Your task to perform on an android device: turn on bluetooth scan Image 0: 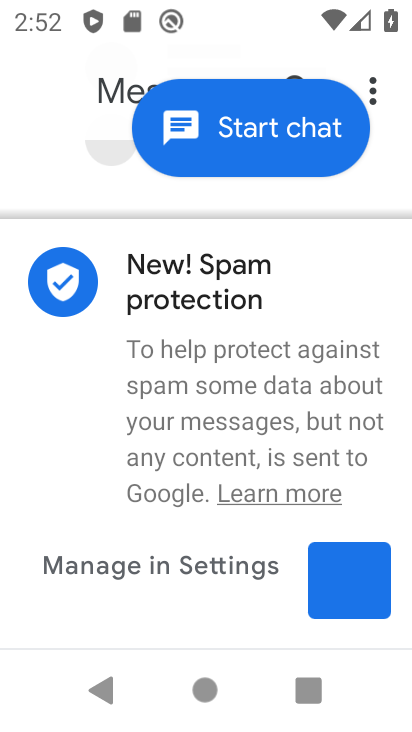
Step 0: press home button
Your task to perform on an android device: turn on bluetooth scan Image 1: 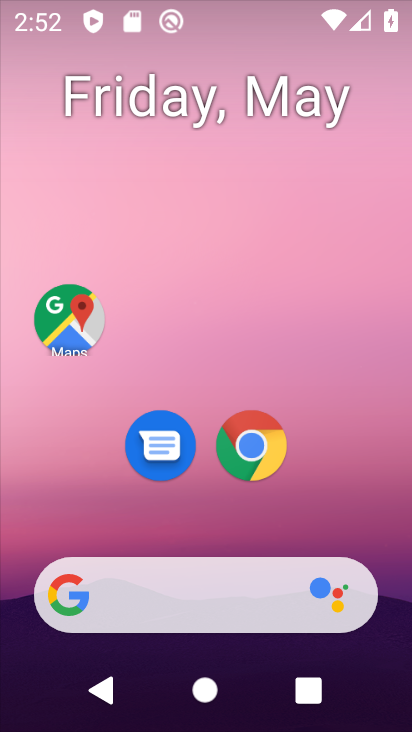
Step 1: drag from (400, 542) to (42, 90)
Your task to perform on an android device: turn on bluetooth scan Image 2: 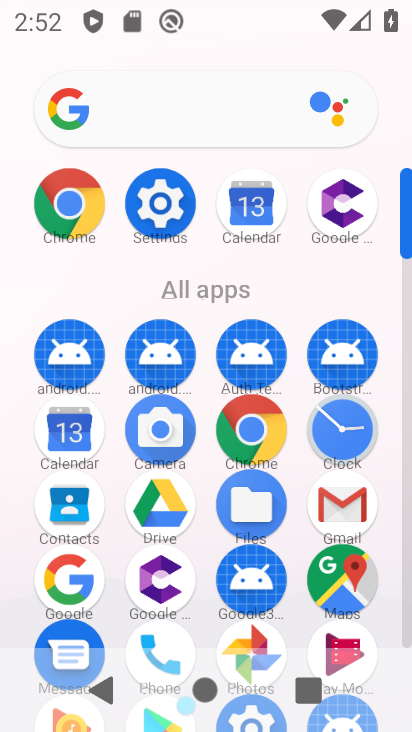
Step 2: click (161, 215)
Your task to perform on an android device: turn on bluetooth scan Image 3: 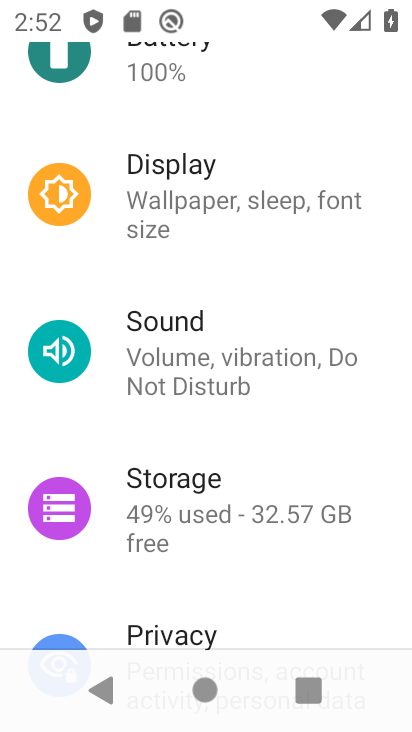
Step 3: drag from (196, 506) to (122, 79)
Your task to perform on an android device: turn on bluetooth scan Image 4: 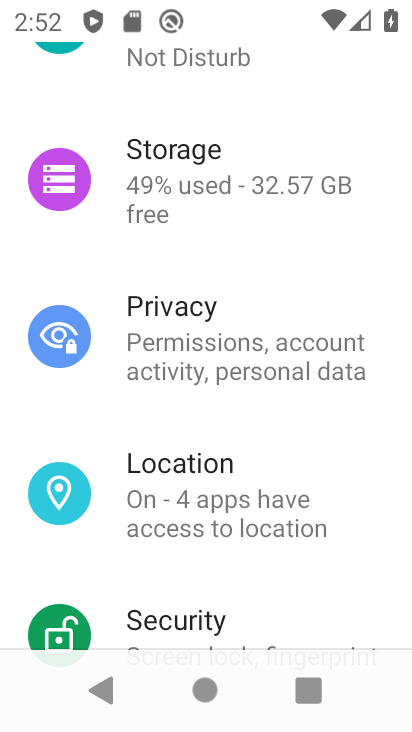
Step 4: click (178, 475)
Your task to perform on an android device: turn on bluetooth scan Image 5: 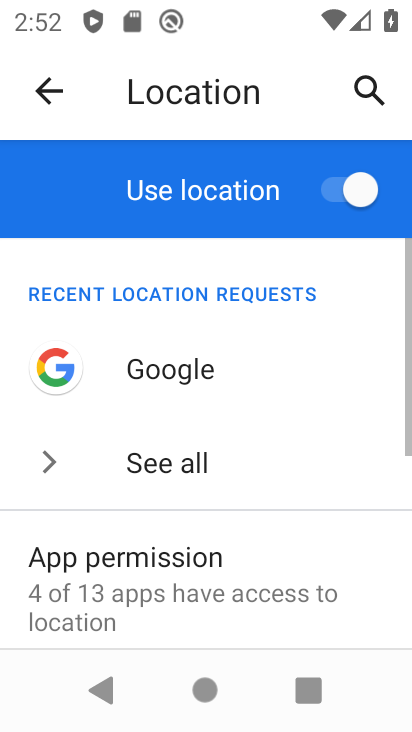
Step 5: drag from (175, 516) to (172, 159)
Your task to perform on an android device: turn on bluetooth scan Image 6: 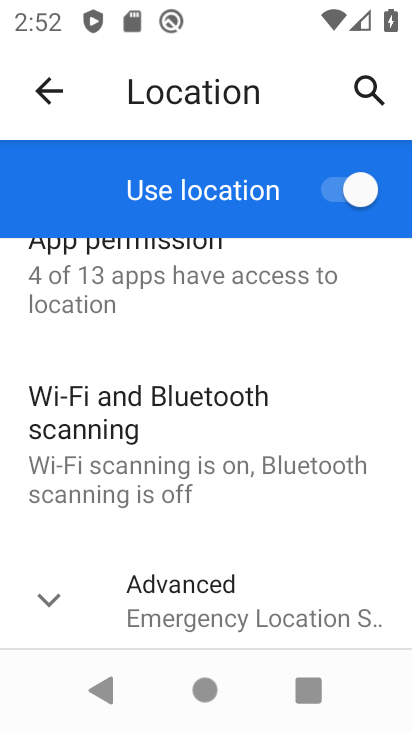
Step 6: click (105, 420)
Your task to perform on an android device: turn on bluetooth scan Image 7: 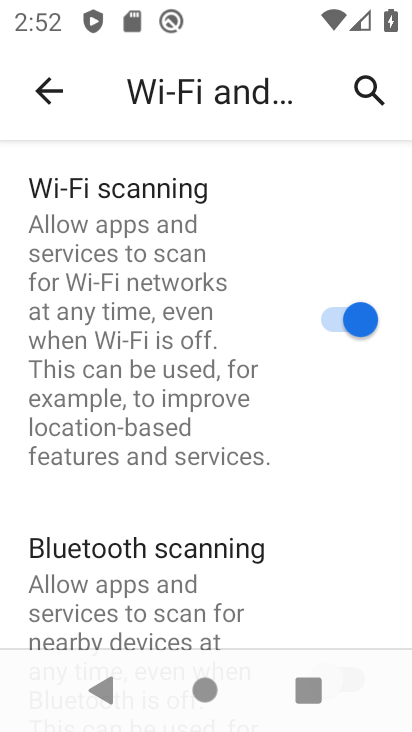
Step 7: drag from (190, 493) to (208, 107)
Your task to perform on an android device: turn on bluetooth scan Image 8: 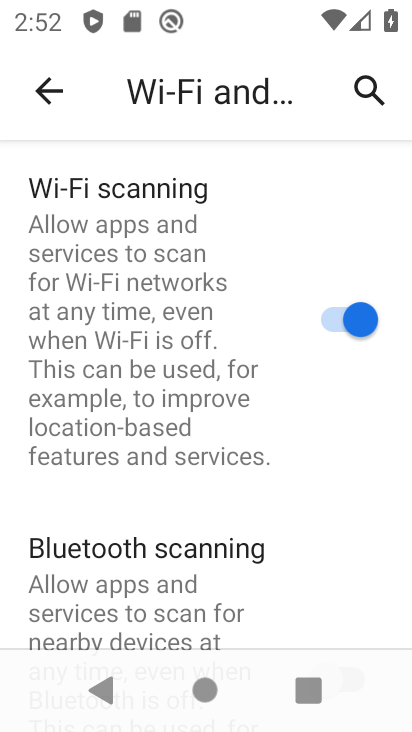
Step 8: drag from (234, 528) to (232, 234)
Your task to perform on an android device: turn on bluetooth scan Image 9: 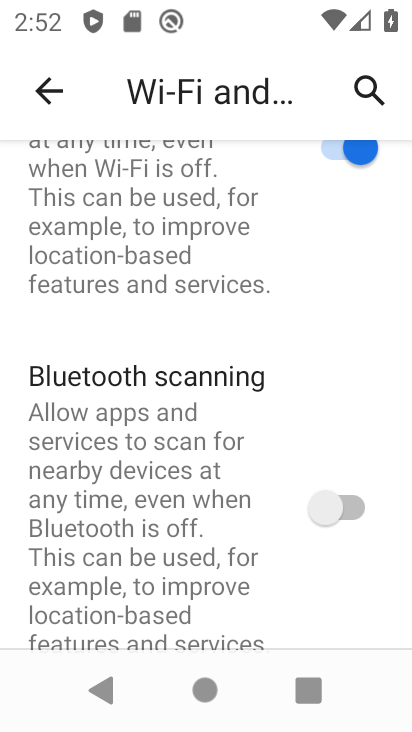
Step 9: click (332, 505)
Your task to perform on an android device: turn on bluetooth scan Image 10: 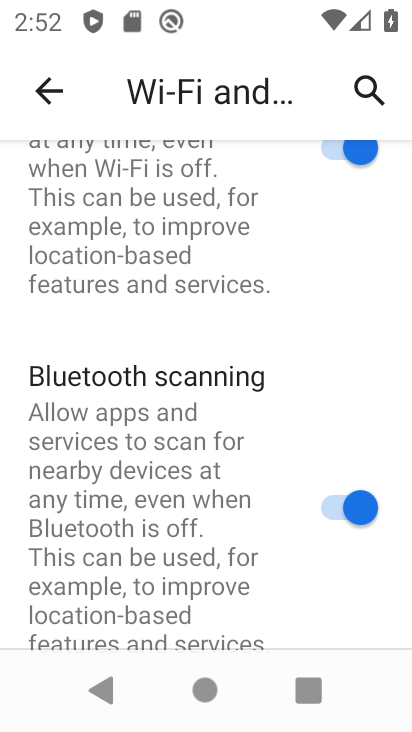
Step 10: press home button
Your task to perform on an android device: turn on bluetooth scan Image 11: 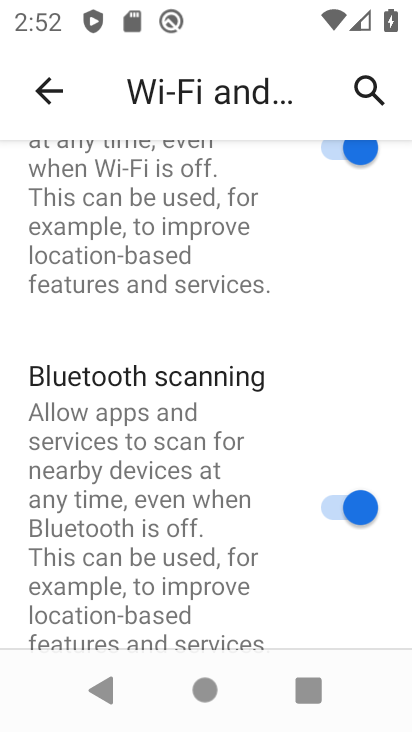
Step 11: press home button
Your task to perform on an android device: turn on bluetooth scan Image 12: 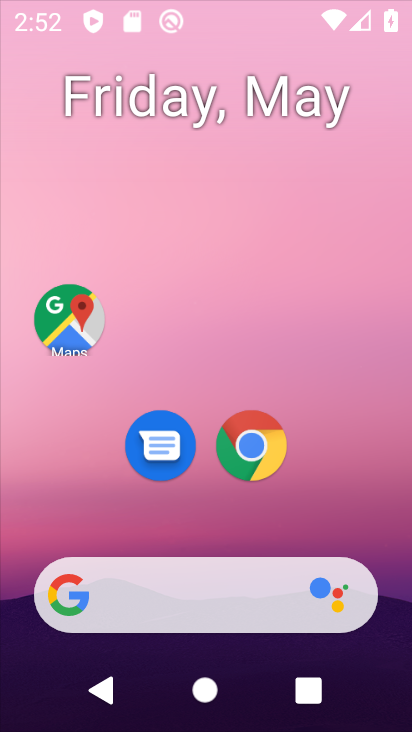
Step 12: press home button
Your task to perform on an android device: turn on bluetooth scan Image 13: 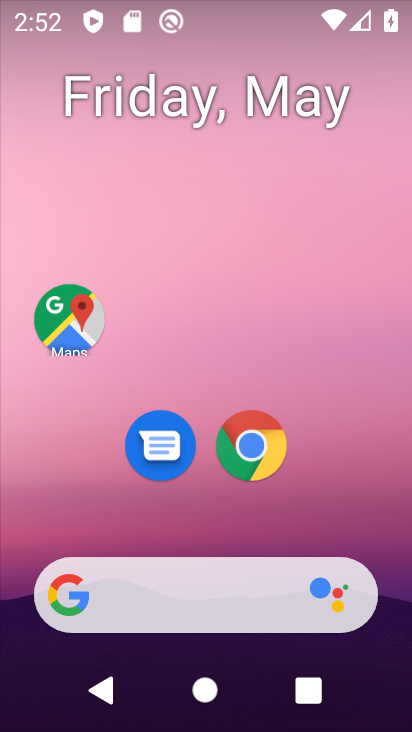
Step 13: drag from (207, 485) to (129, 8)
Your task to perform on an android device: turn on bluetooth scan Image 14: 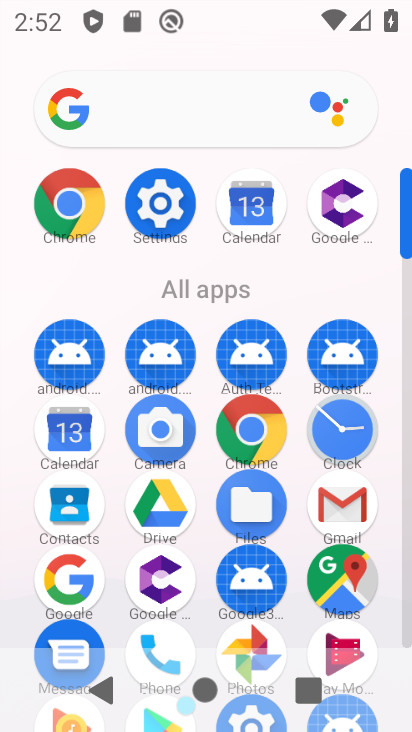
Step 14: click (159, 208)
Your task to perform on an android device: turn on bluetooth scan Image 15: 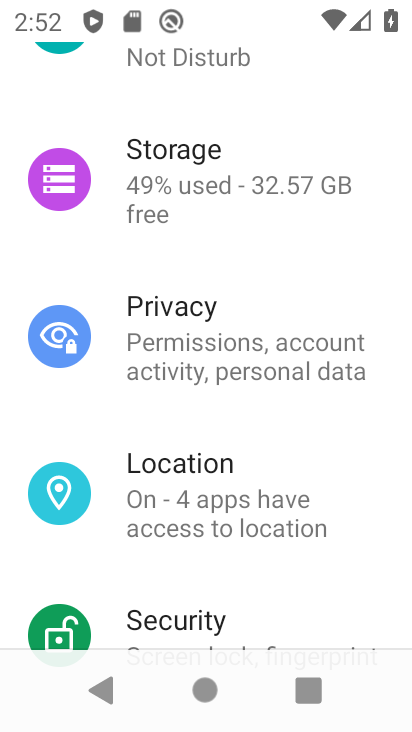
Step 15: click (190, 500)
Your task to perform on an android device: turn on bluetooth scan Image 16: 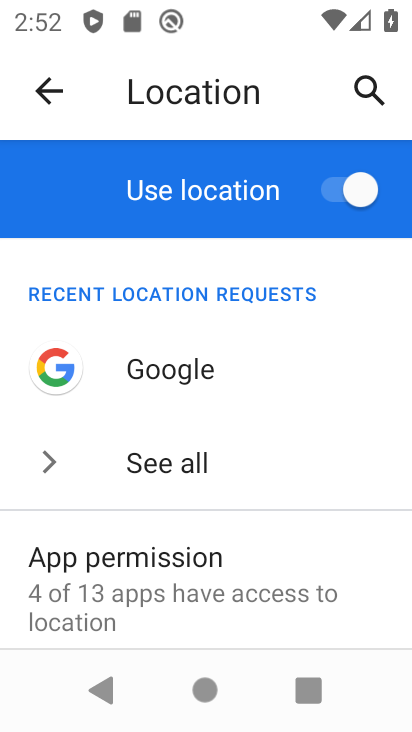
Step 16: drag from (194, 544) to (205, 130)
Your task to perform on an android device: turn on bluetooth scan Image 17: 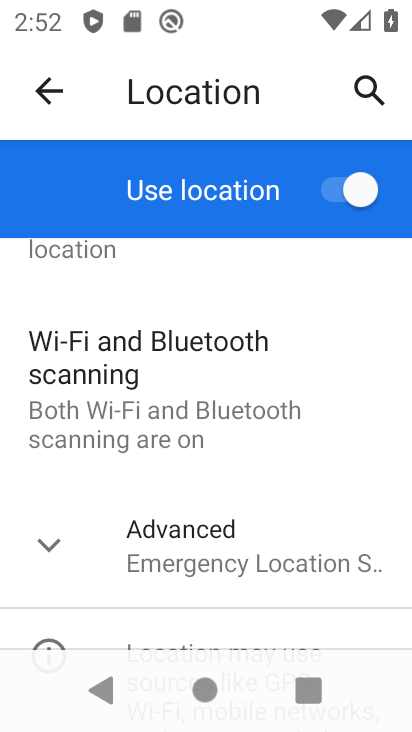
Step 17: click (123, 417)
Your task to perform on an android device: turn on bluetooth scan Image 18: 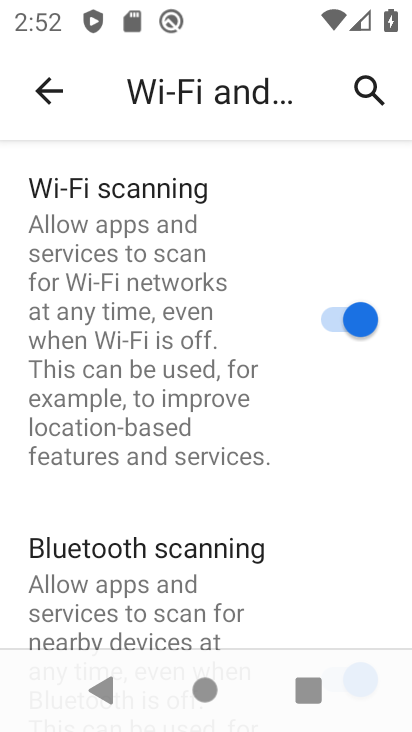
Step 18: task complete